Your task to perform on an android device: change the clock display to digital Image 0: 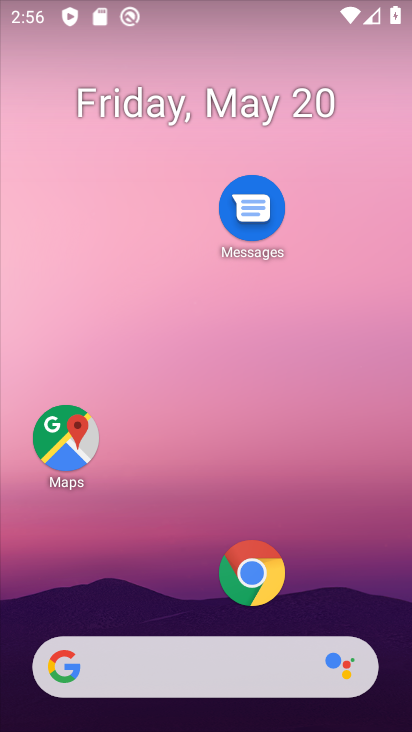
Step 0: drag from (186, 606) to (192, 17)
Your task to perform on an android device: change the clock display to digital Image 1: 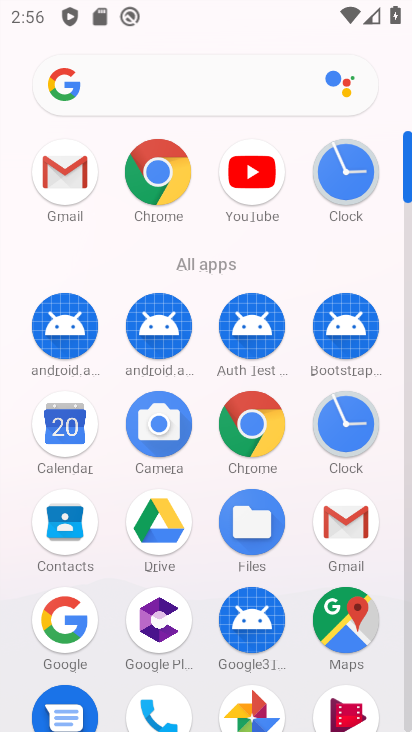
Step 1: click (361, 432)
Your task to perform on an android device: change the clock display to digital Image 2: 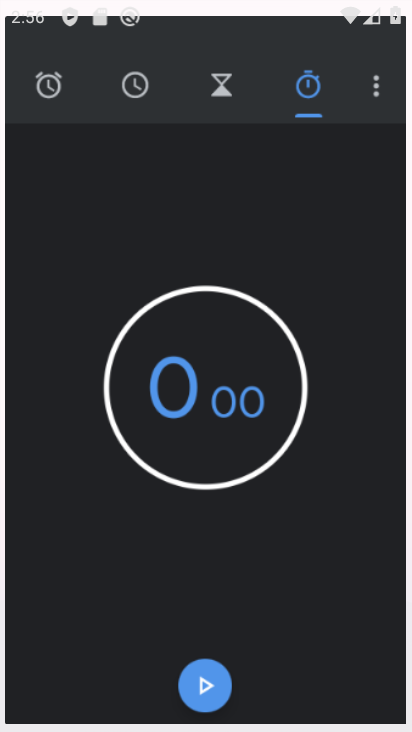
Step 2: click (361, 432)
Your task to perform on an android device: change the clock display to digital Image 3: 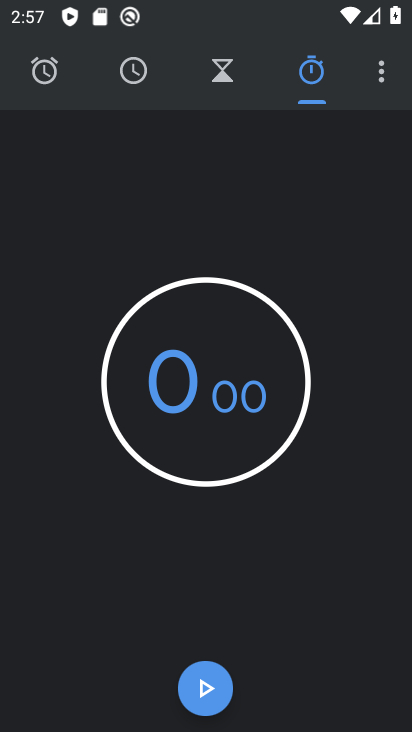
Step 3: click (385, 83)
Your task to perform on an android device: change the clock display to digital Image 4: 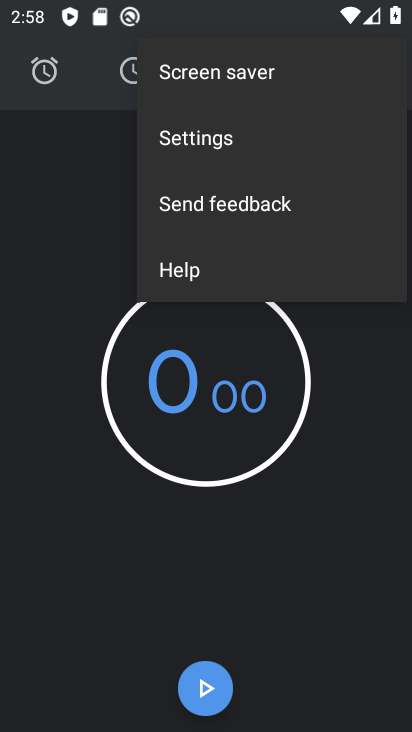
Step 4: click (230, 157)
Your task to perform on an android device: change the clock display to digital Image 5: 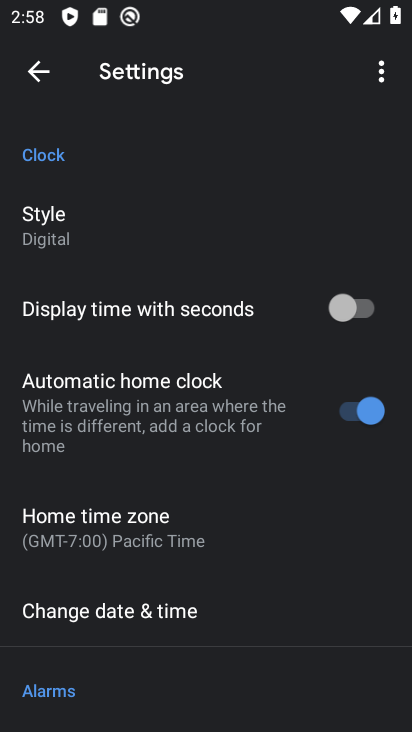
Step 5: click (122, 222)
Your task to perform on an android device: change the clock display to digital Image 6: 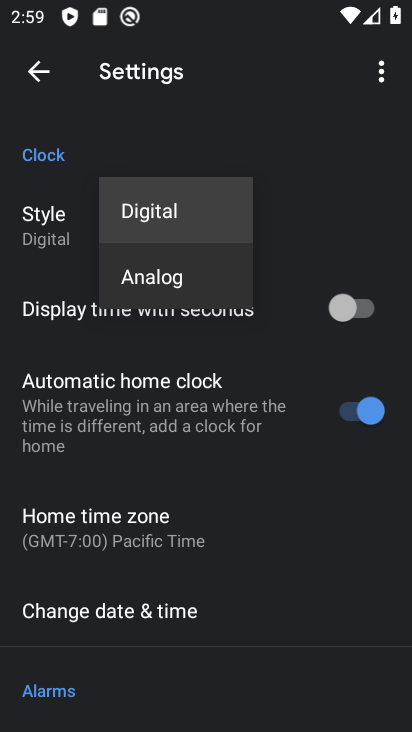
Step 6: task complete